Your task to perform on an android device: Open Reddit.com Image 0: 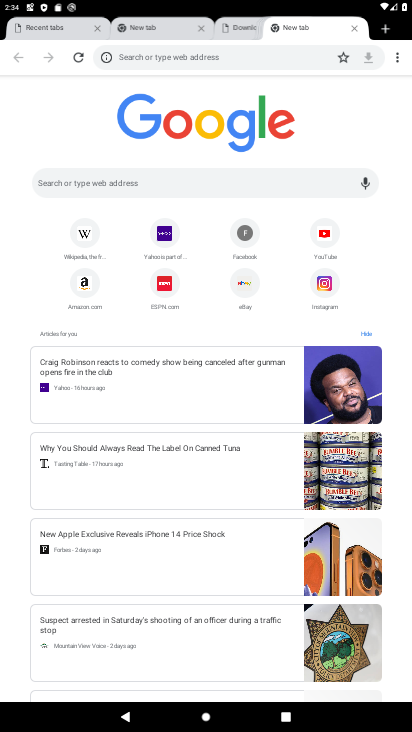
Step 0: click (118, 175)
Your task to perform on an android device: Open Reddit.com Image 1: 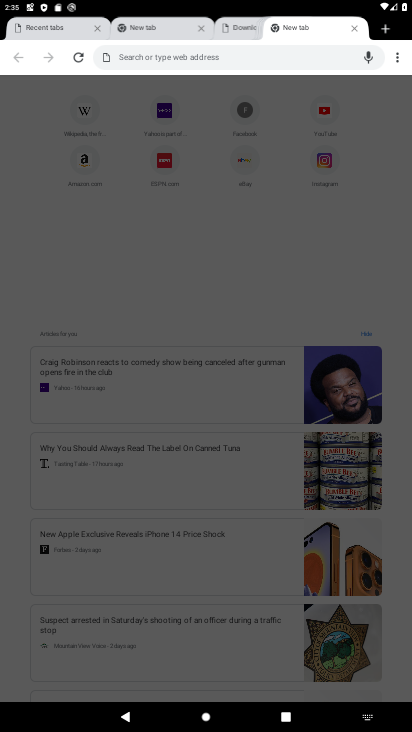
Step 1: type "Reddit.com"
Your task to perform on an android device: Open Reddit.com Image 2: 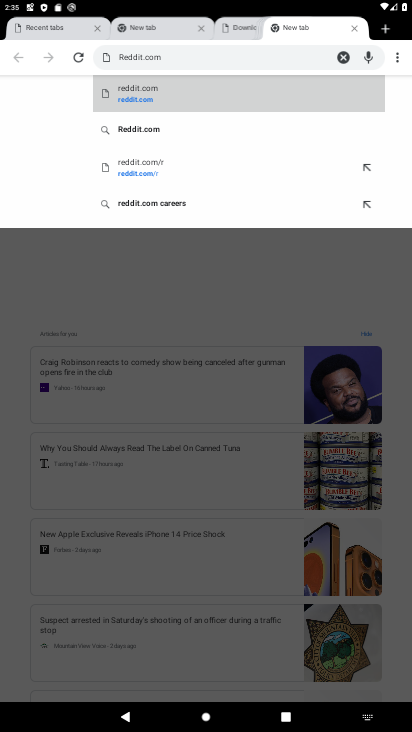
Step 2: click (179, 104)
Your task to perform on an android device: Open Reddit.com Image 3: 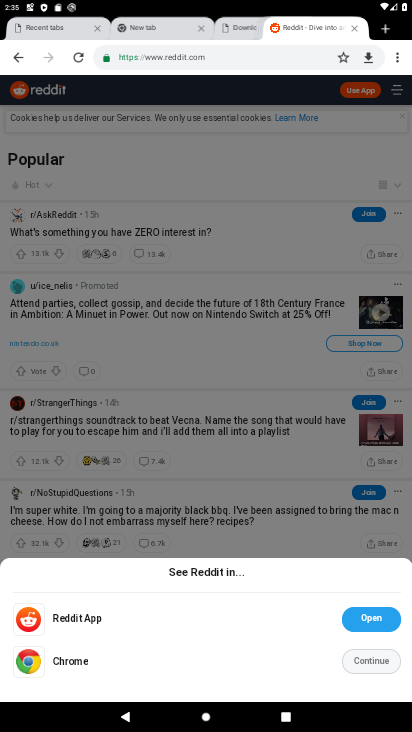
Step 3: task complete